Your task to perform on an android device: open app "Gmail" (install if not already installed) Image 0: 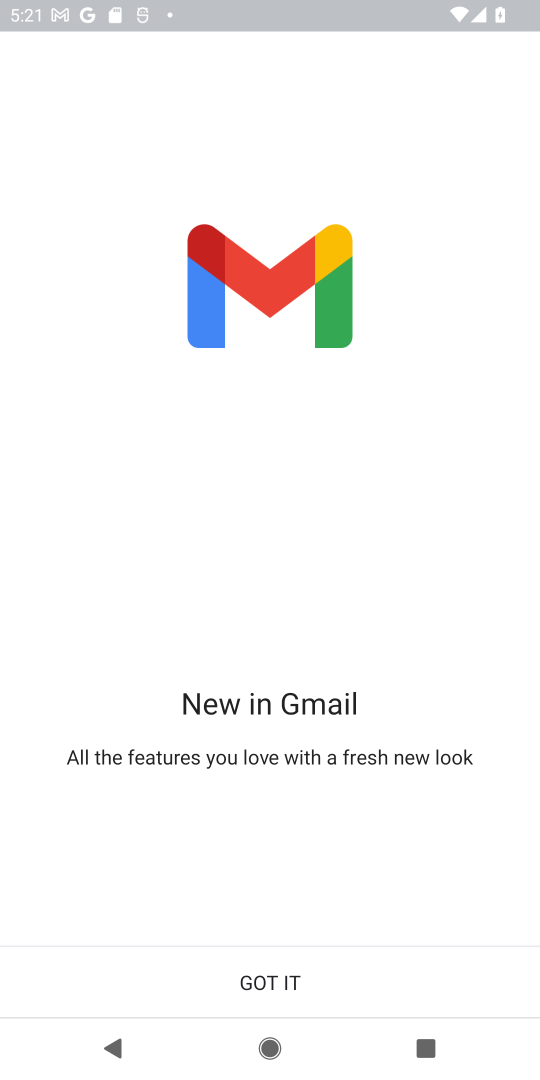
Step 0: press home button
Your task to perform on an android device: open app "Gmail" (install if not already installed) Image 1: 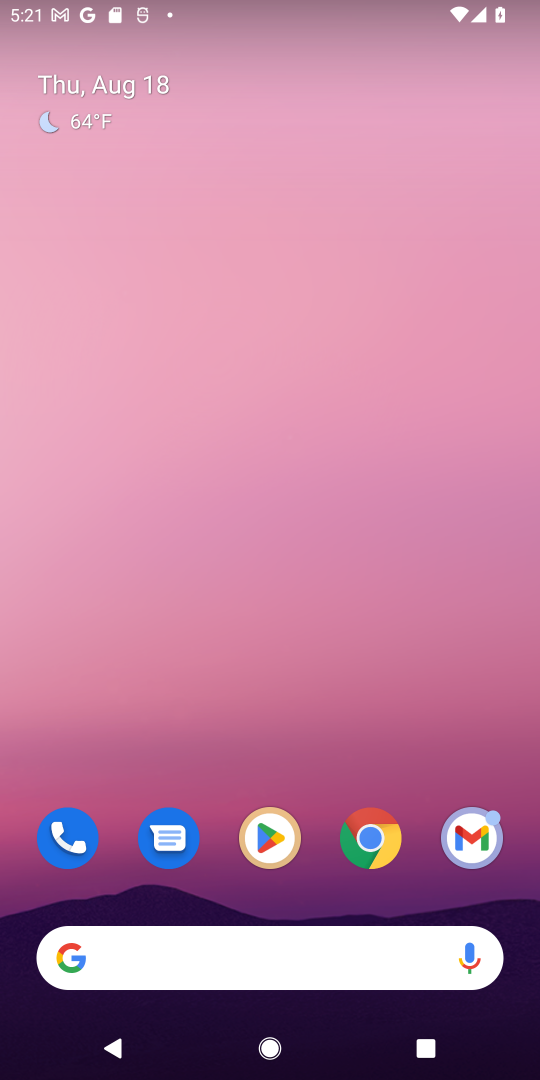
Step 1: drag from (196, 957) to (344, 25)
Your task to perform on an android device: open app "Gmail" (install if not already installed) Image 2: 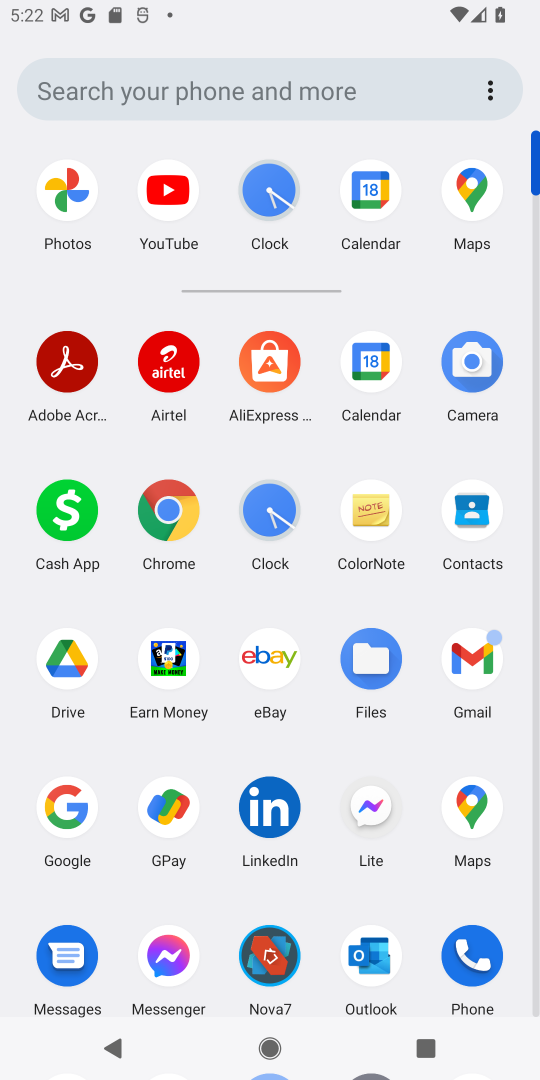
Step 2: drag from (311, 750) to (312, 323)
Your task to perform on an android device: open app "Gmail" (install if not already installed) Image 3: 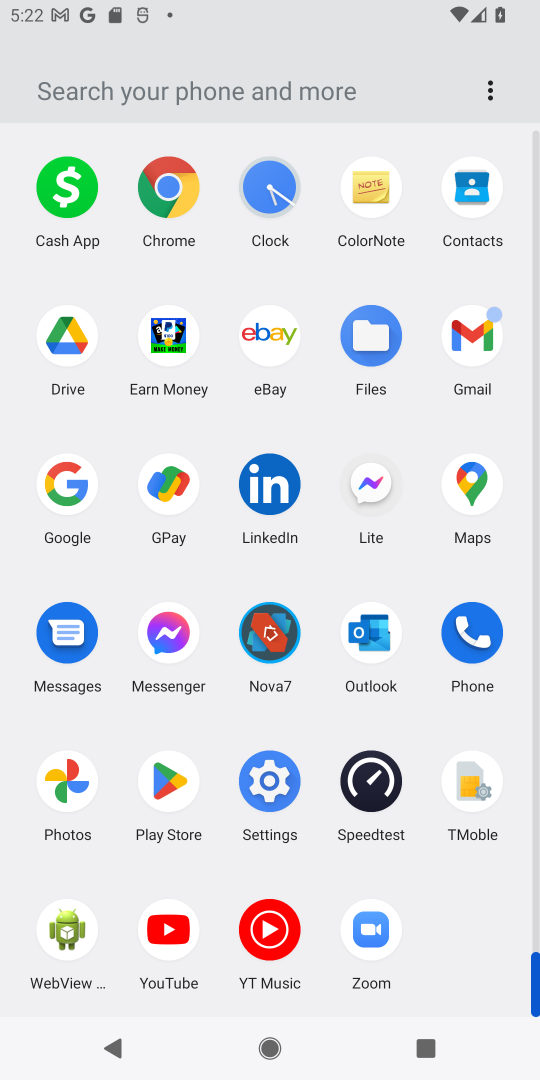
Step 3: click (169, 783)
Your task to perform on an android device: open app "Gmail" (install if not already installed) Image 4: 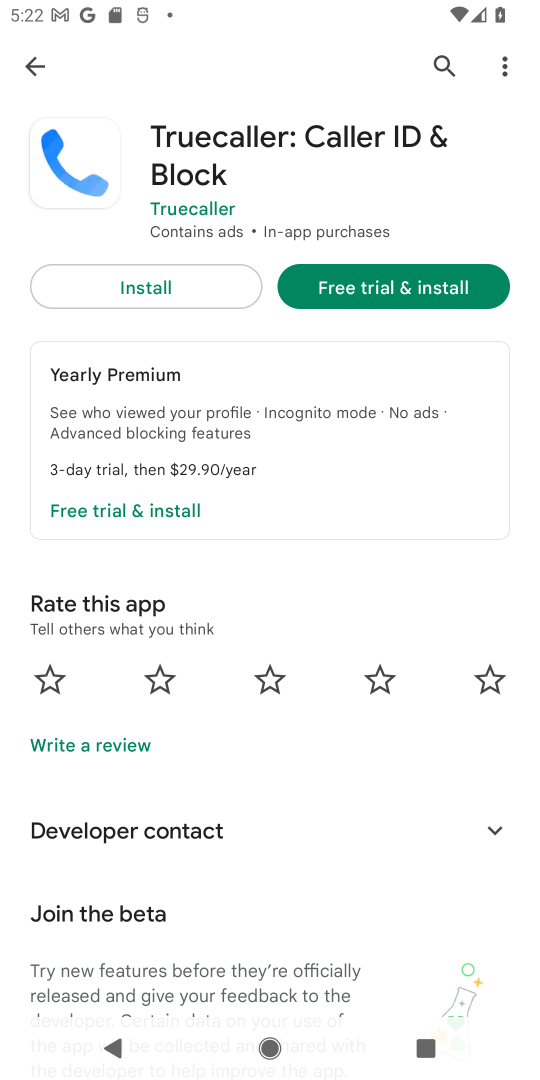
Step 4: press back button
Your task to perform on an android device: open app "Gmail" (install if not already installed) Image 5: 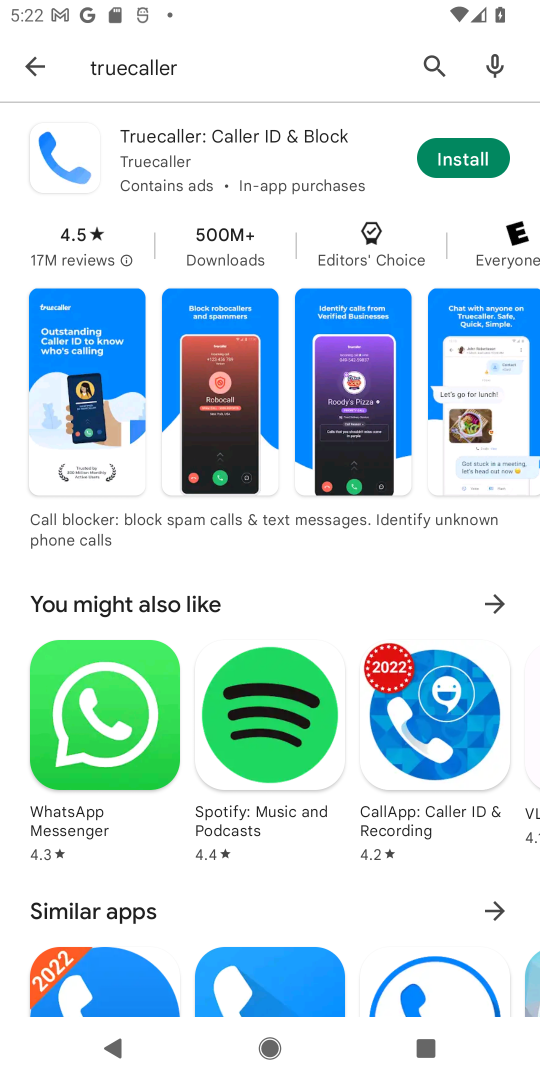
Step 5: press back button
Your task to perform on an android device: open app "Gmail" (install if not already installed) Image 6: 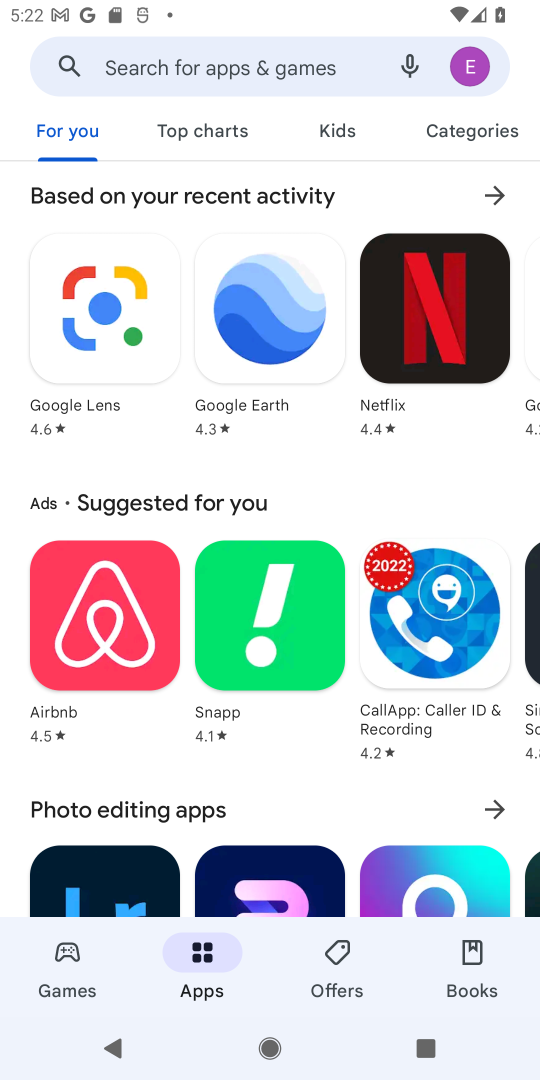
Step 6: click (306, 71)
Your task to perform on an android device: open app "Gmail" (install if not already installed) Image 7: 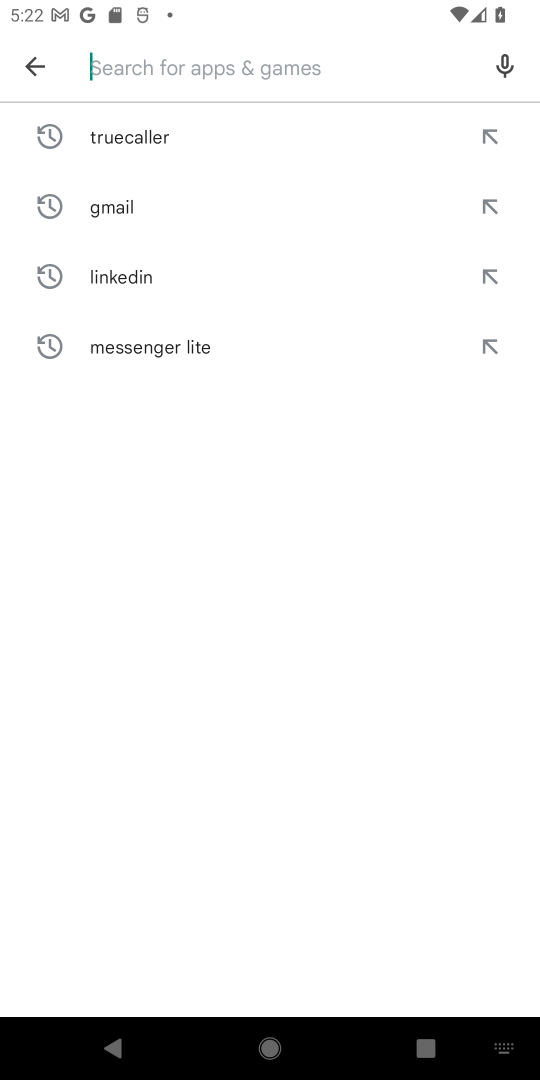
Step 7: type "Gmail"
Your task to perform on an android device: open app "Gmail" (install if not already installed) Image 8: 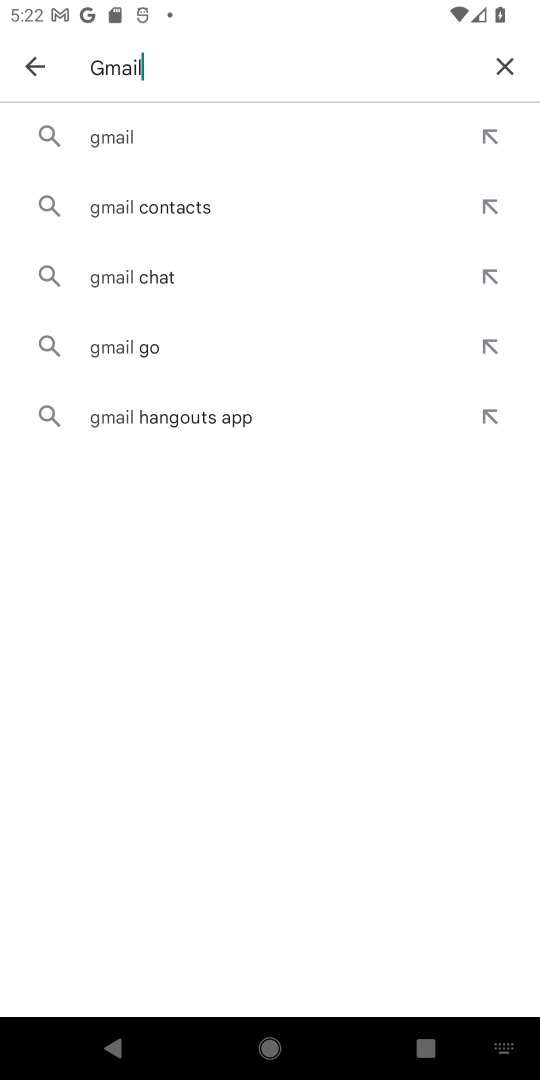
Step 8: click (125, 138)
Your task to perform on an android device: open app "Gmail" (install if not already installed) Image 9: 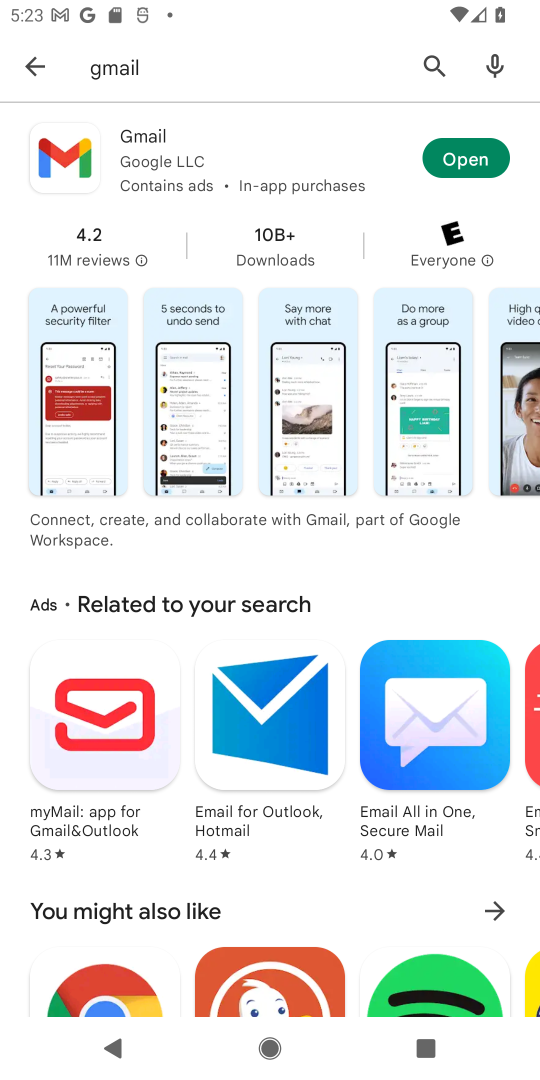
Step 9: click (475, 166)
Your task to perform on an android device: open app "Gmail" (install if not already installed) Image 10: 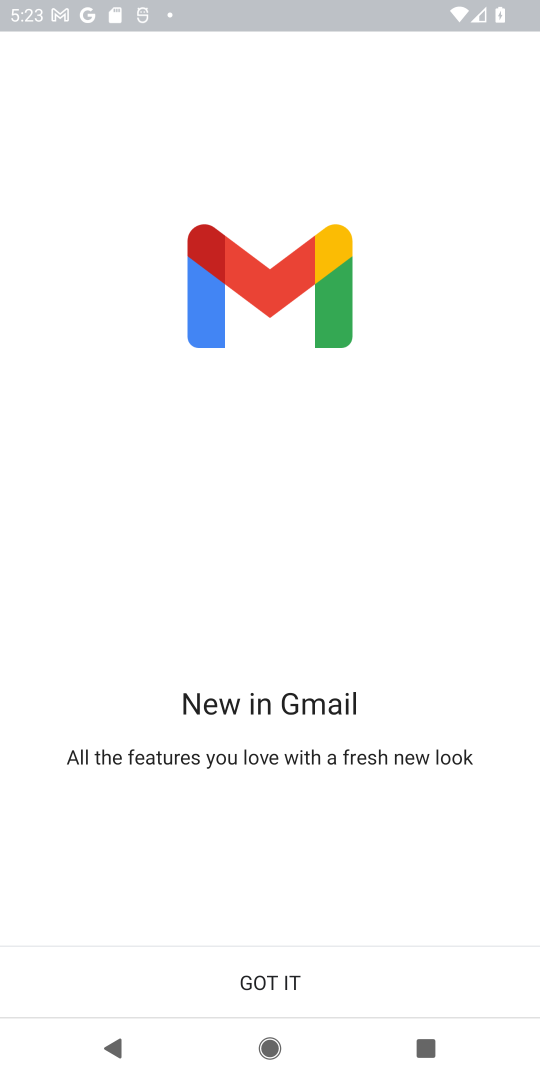
Step 10: click (266, 978)
Your task to perform on an android device: open app "Gmail" (install if not already installed) Image 11: 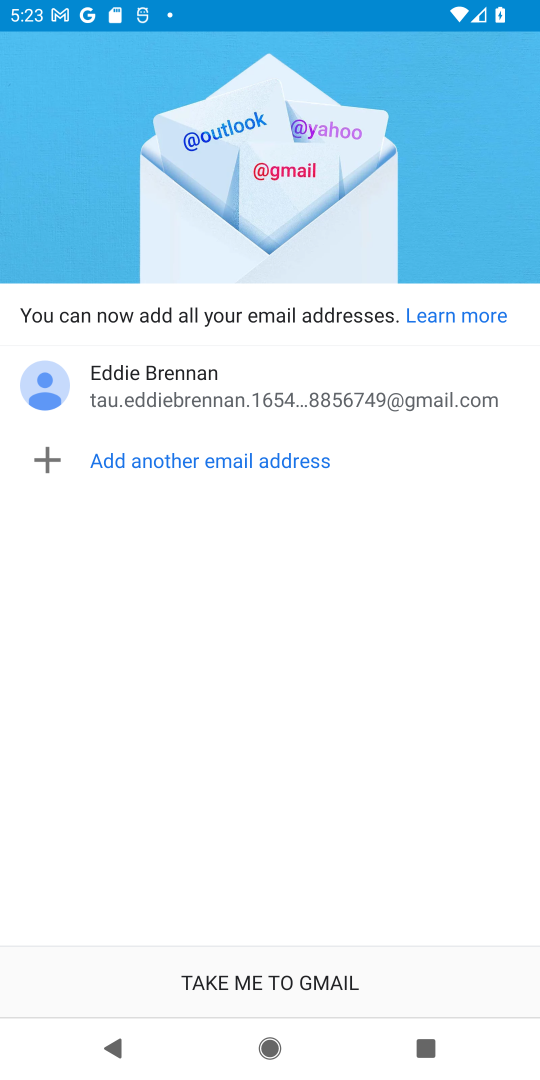
Step 11: click (266, 978)
Your task to perform on an android device: open app "Gmail" (install if not already installed) Image 12: 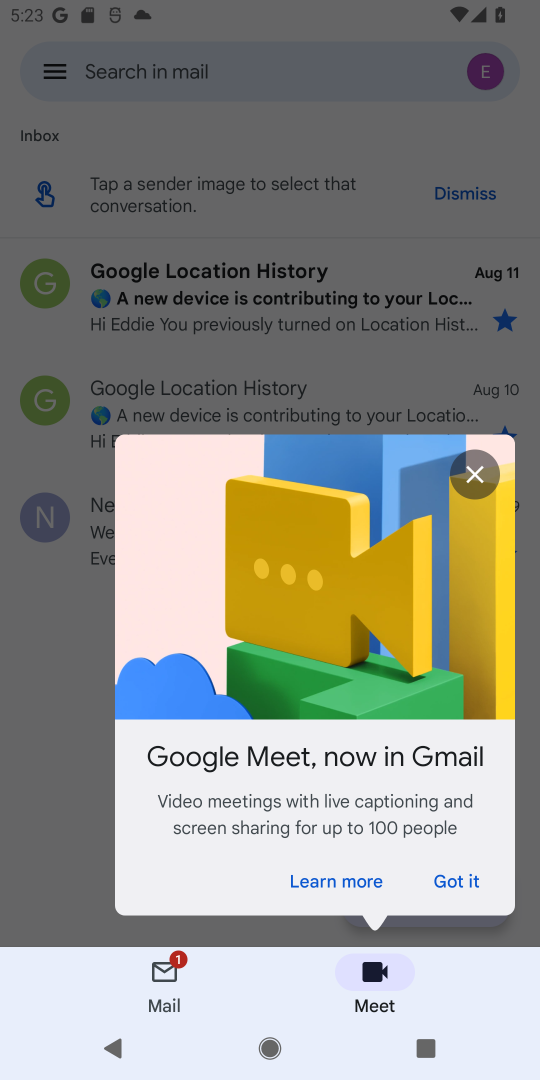
Step 12: click (471, 871)
Your task to perform on an android device: open app "Gmail" (install if not already installed) Image 13: 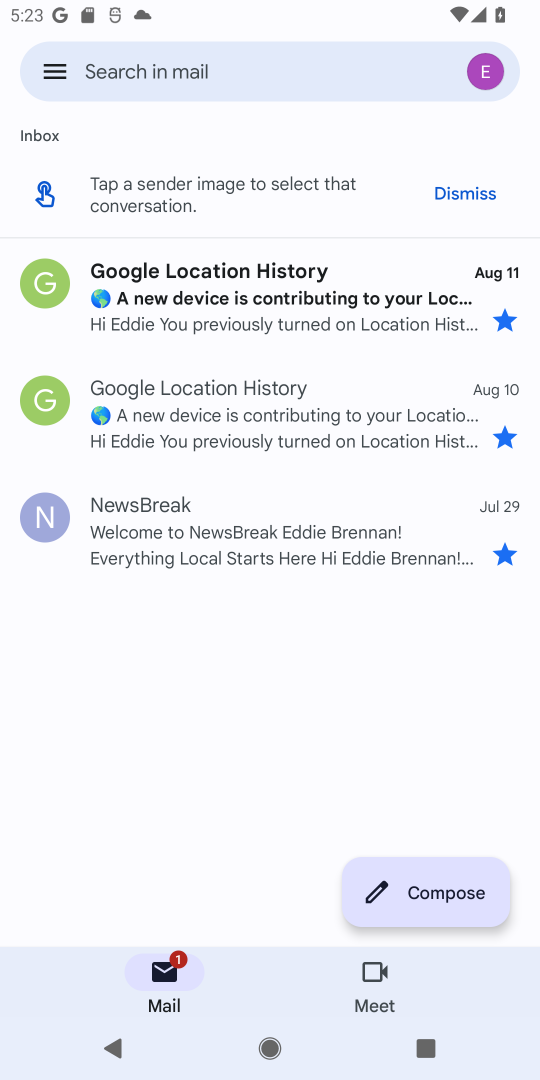
Step 13: task complete